Your task to perform on an android device: Turn off the flashlight Image 0: 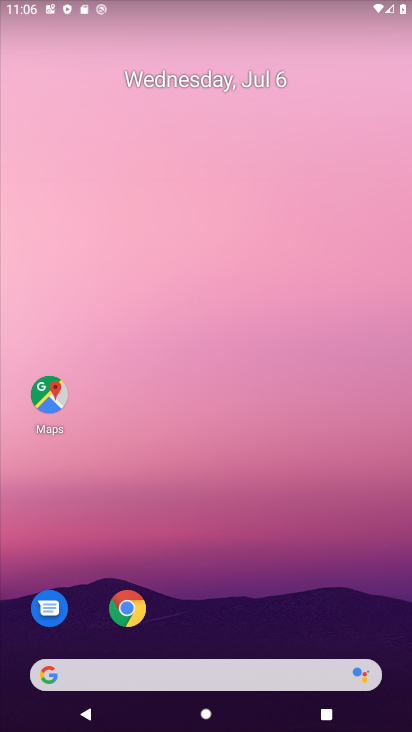
Step 0: drag from (232, 627) to (175, 104)
Your task to perform on an android device: Turn off the flashlight Image 1: 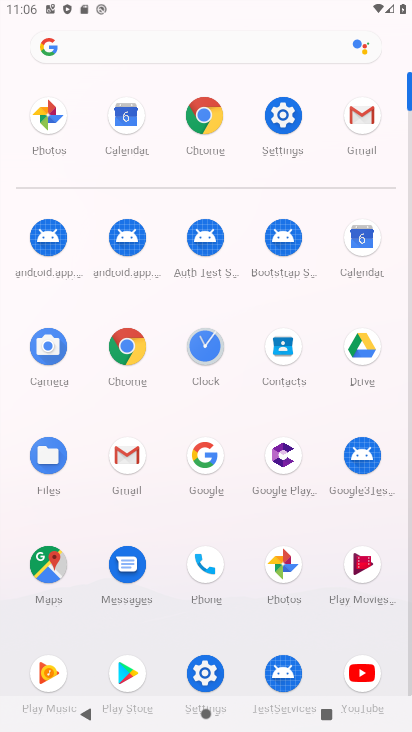
Step 1: click (277, 118)
Your task to perform on an android device: Turn off the flashlight Image 2: 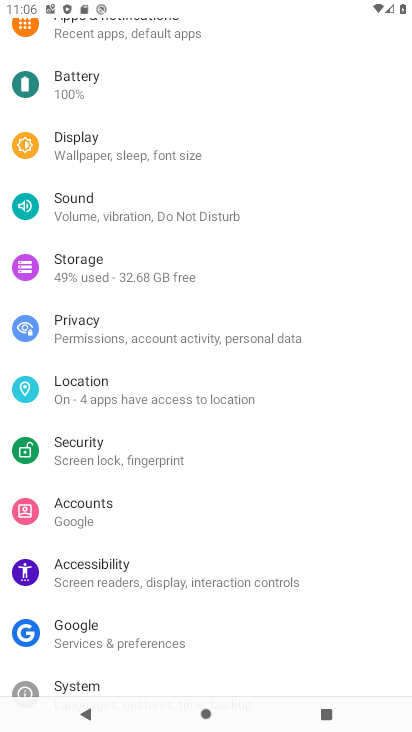
Step 2: task complete